Your task to perform on an android device: change timer sound Image 0: 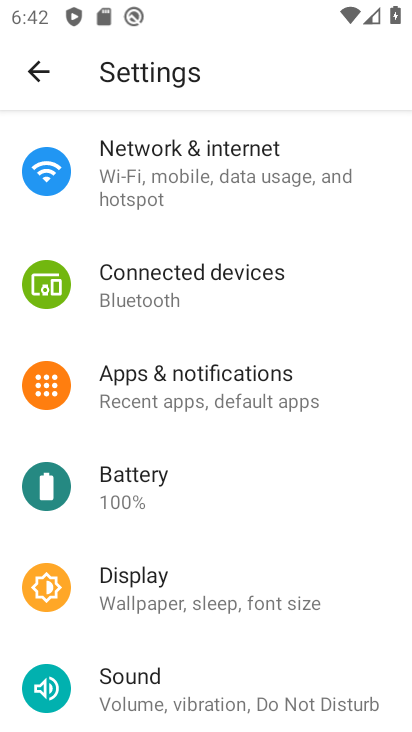
Step 0: press home button
Your task to perform on an android device: change timer sound Image 1: 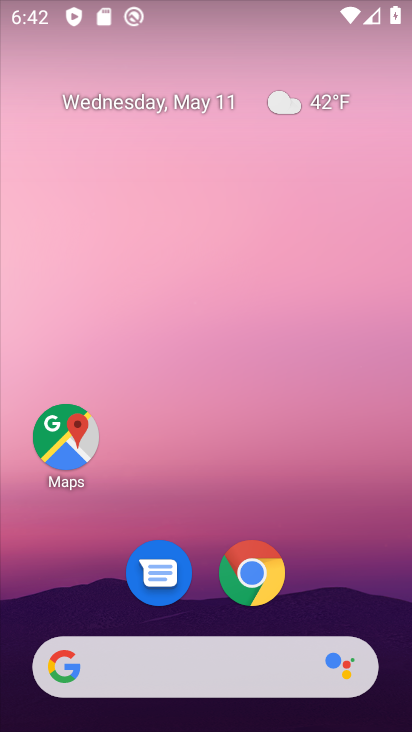
Step 1: drag from (339, 553) to (294, 144)
Your task to perform on an android device: change timer sound Image 2: 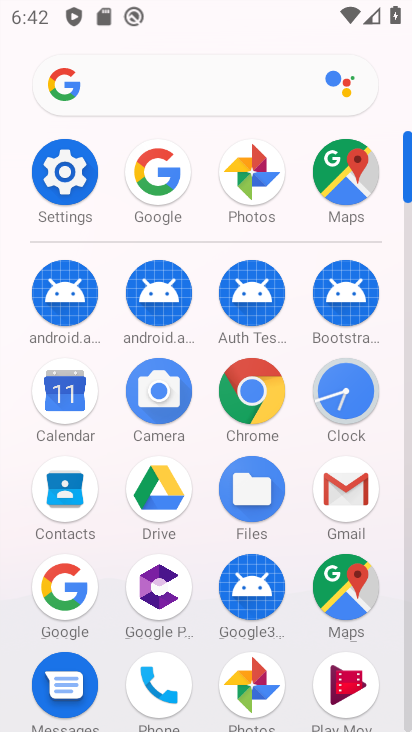
Step 2: click (350, 407)
Your task to perform on an android device: change timer sound Image 3: 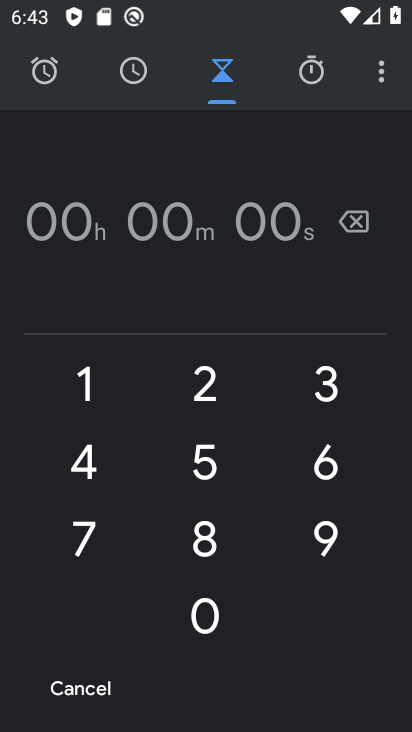
Step 3: click (388, 84)
Your task to perform on an android device: change timer sound Image 4: 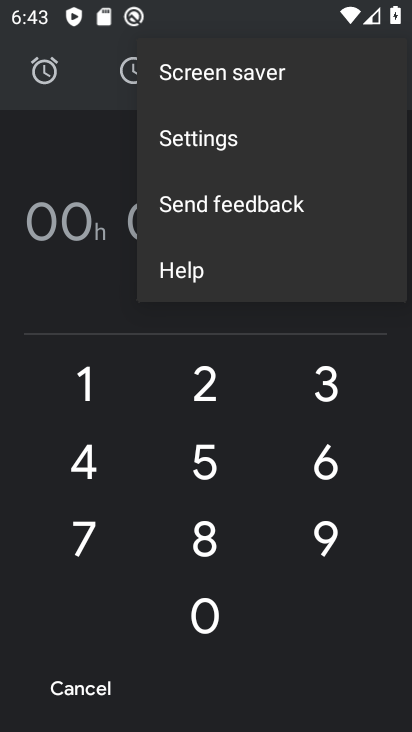
Step 4: click (241, 145)
Your task to perform on an android device: change timer sound Image 5: 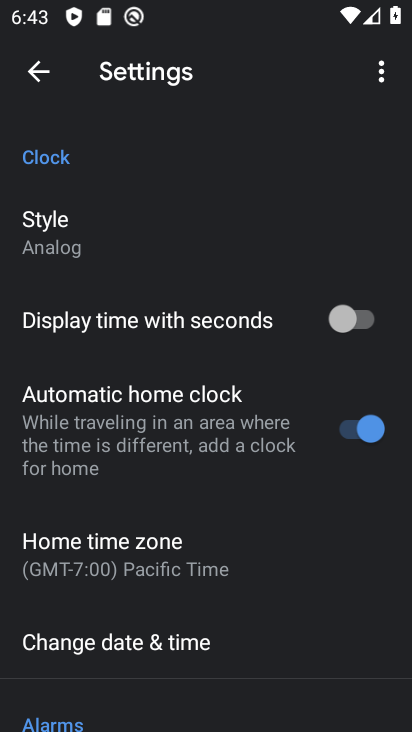
Step 5: drag from (198, 622) to (172, 366)
Your task to perform on an android device: change timer sound Image 6: 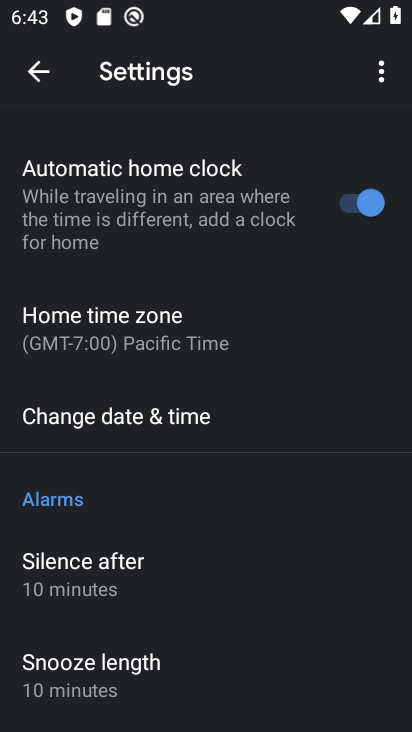
Step 6: drag from (178, 606) to (216, 399)
Your task to perform on an android device: change timer sound Image 7: 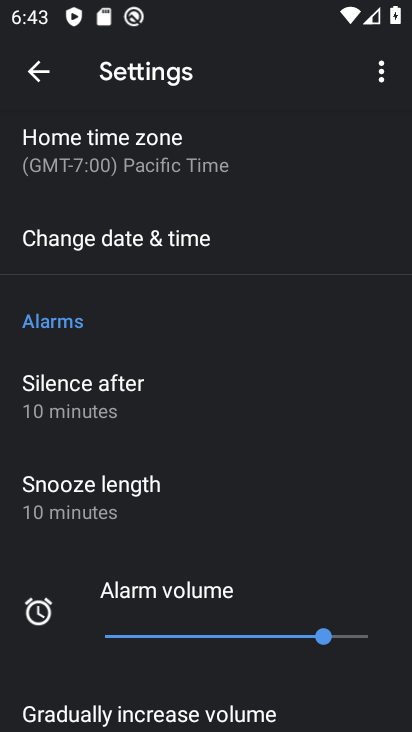
Step 7: drag from (220, 536) to (201, 369)
Your task to perform on an android device: change timer sound Image 8: 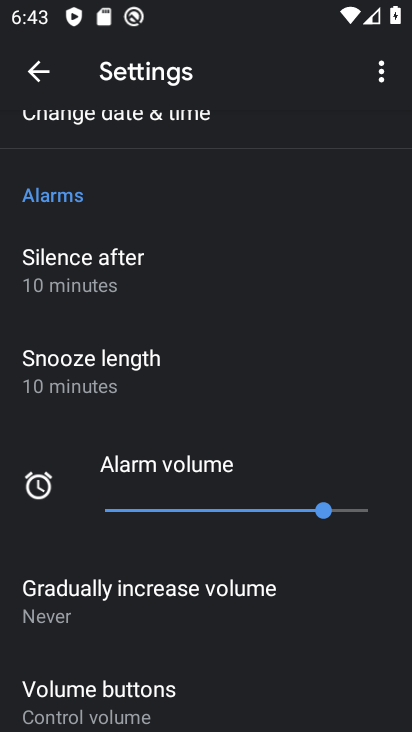
Step 8: drag from (240, 611) to (221, 310)
Your task to perform on an android device: change timer sound Image 9: 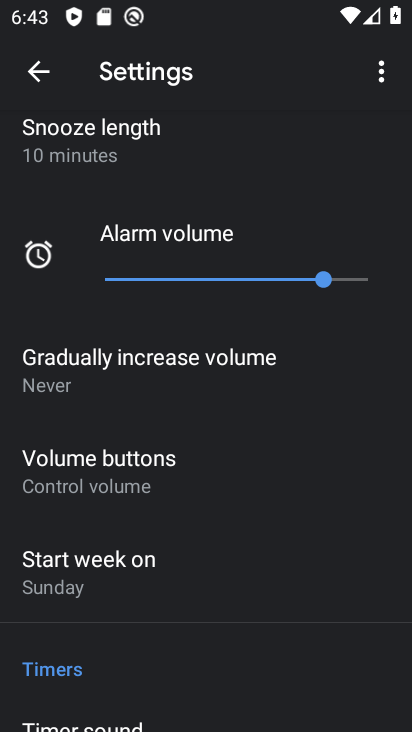
Step 9: drag from (207, 659) to (183, 389)
Your task to perform on an android device: change timer sound Image 10: 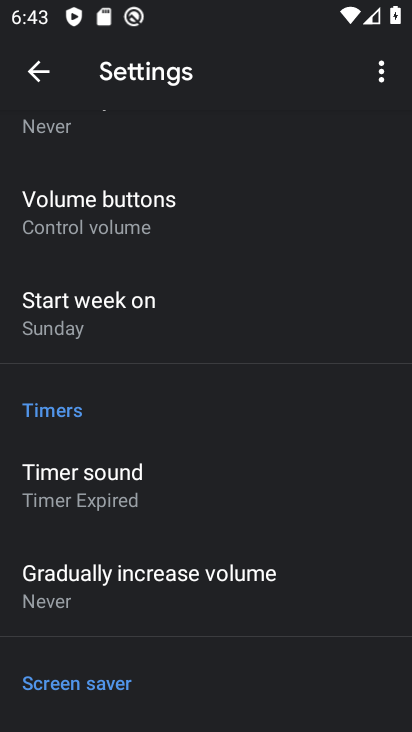
Step 10: click (67, 487)
Your task to perform on an android device: change timer sound Image 11: 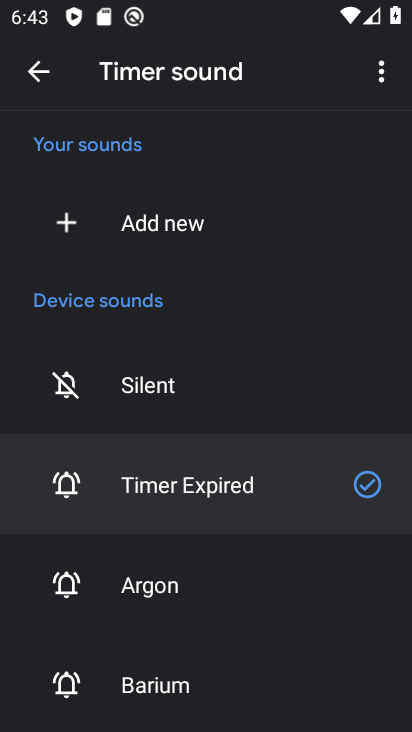
Step 11: click (134, 585)
Your task to perform on an android device: change timer sound Image 12: 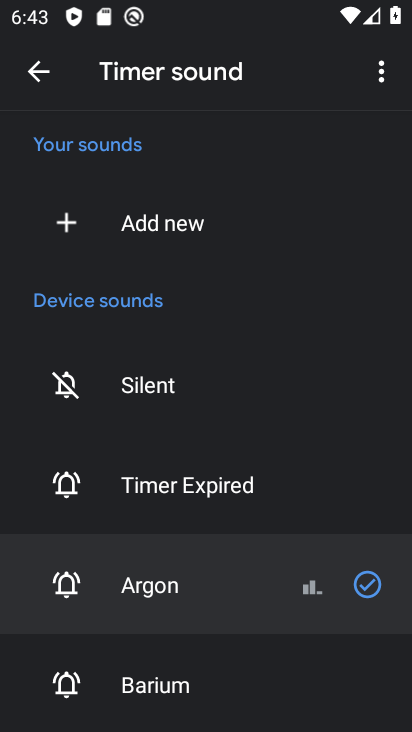
Step 12: task complete